Your task to perform on an android device: Open Google Chrome and click the shortcut for Amazon.com Image 0: 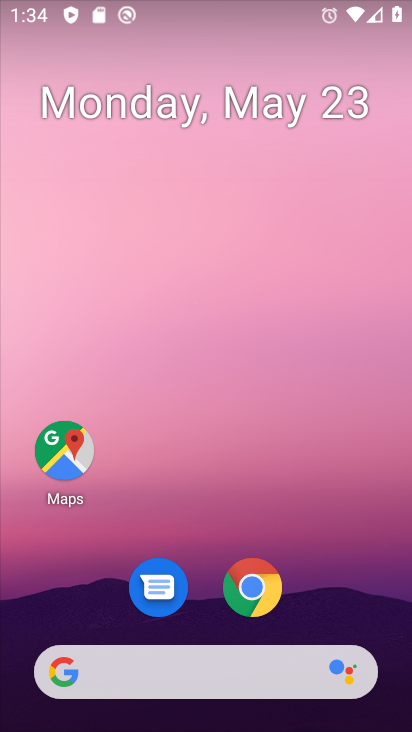
Step 0: click (267, 599)
Your task to perform on an android device: Open Google Chrome and click the shortcut for Amazon.com Image 1: 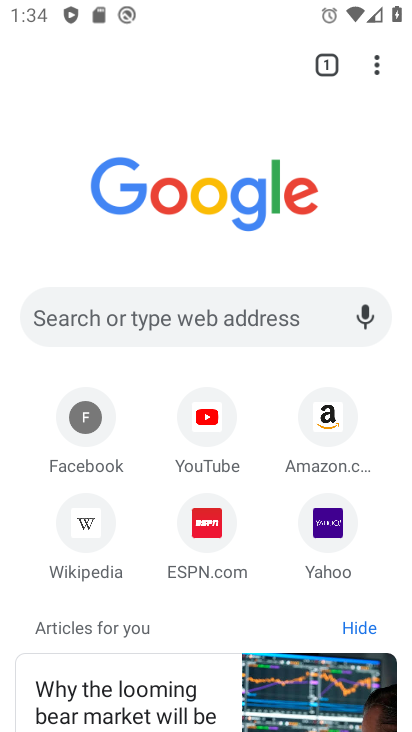
Step 1: click (303, 441)
Your task to perform on an android device: Open Google Chrome and click the shortcut for Amazon.com Image 2: 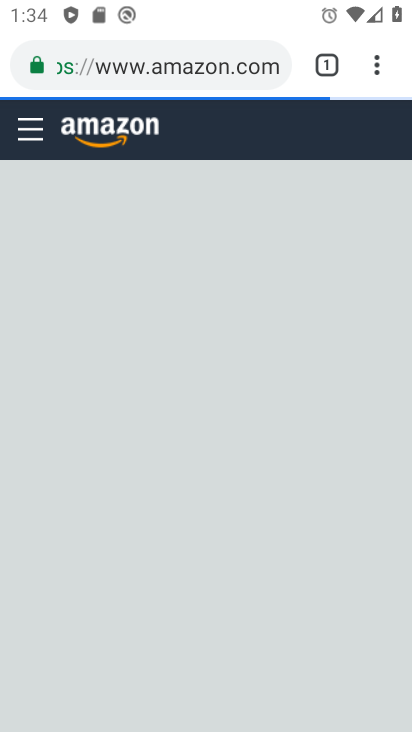
Step 2: task complete